Your task to perform on an android device: Clear the shopping cart on walmart.com. Image 0: 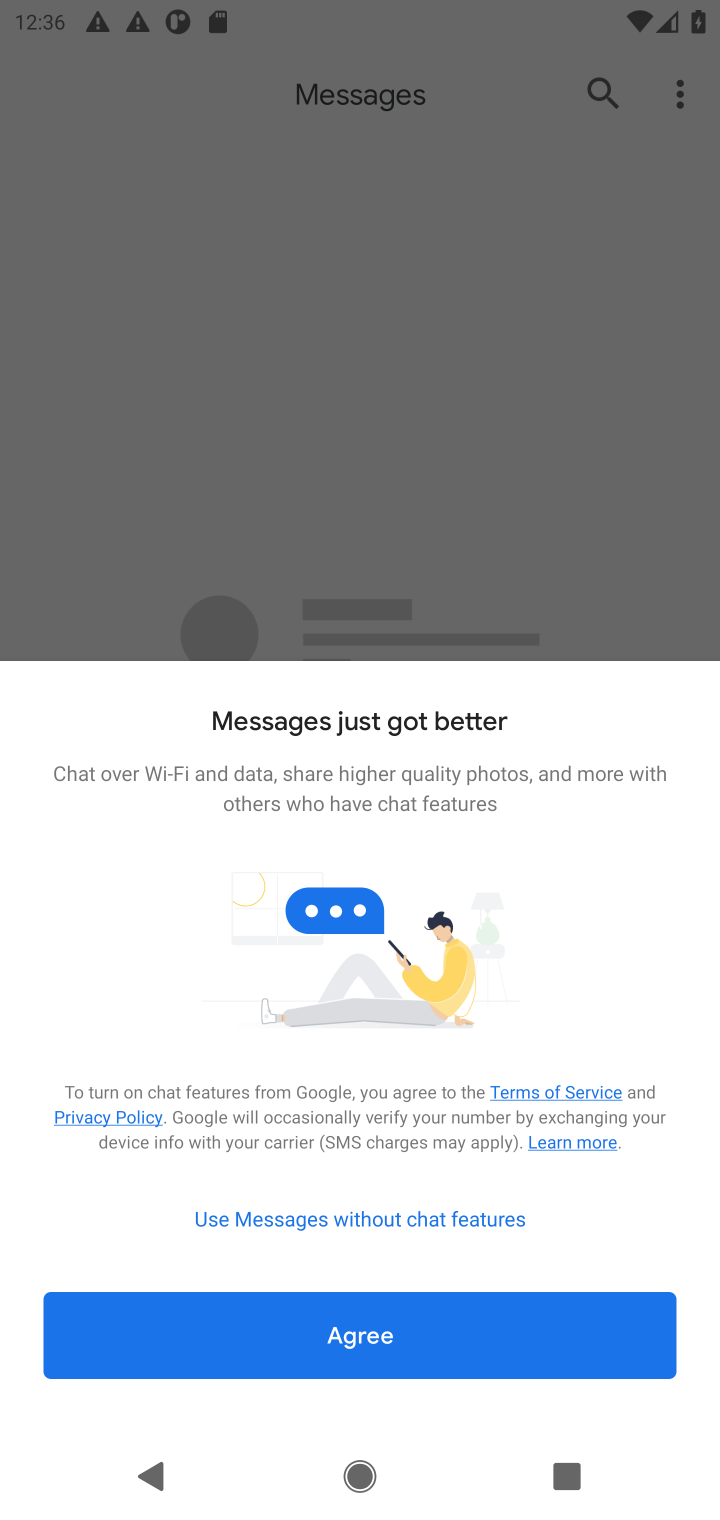
Step 0: click (453, 1340)
Your task to perform on an android device: Clear the shopping cart on walmart.com. Image 1: 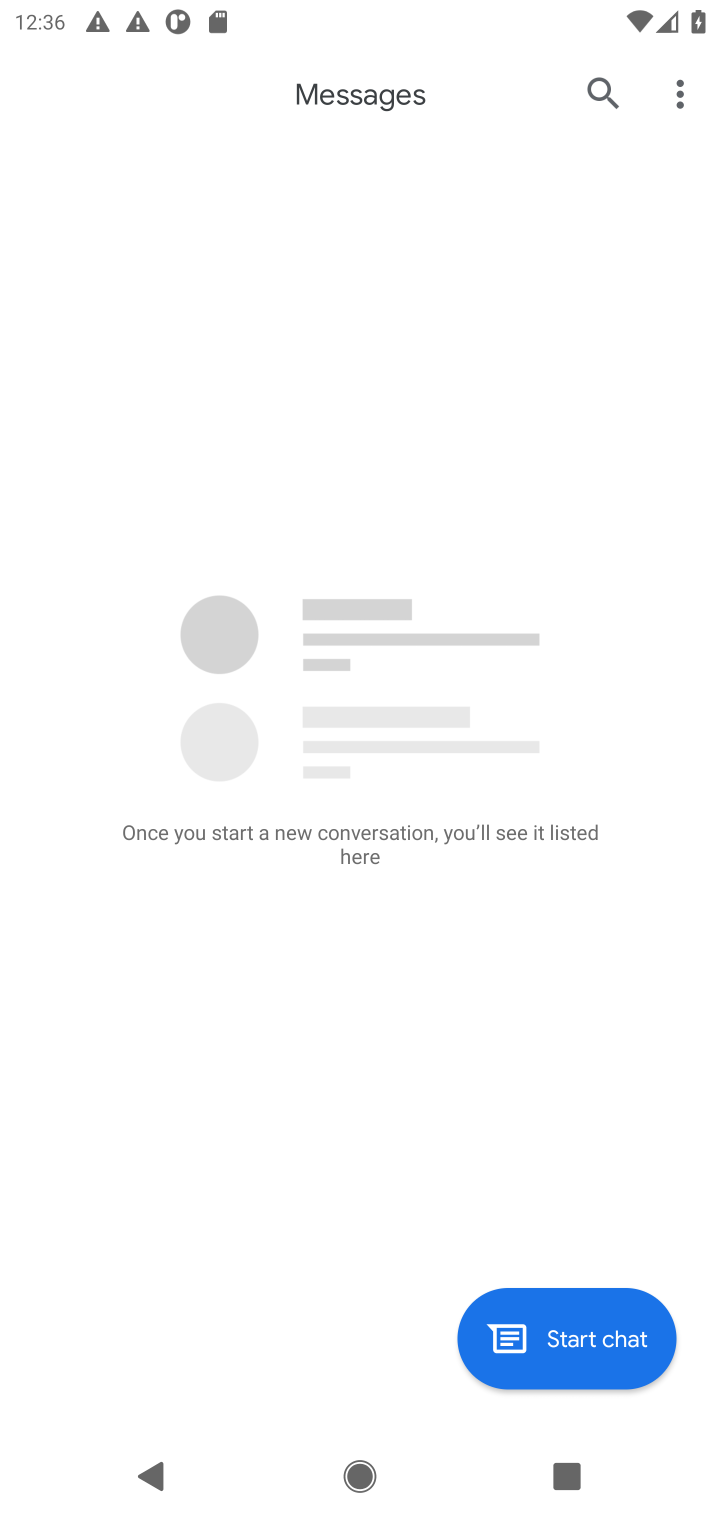
Step 1: press home button
Your task to perform on an android device: Clear the shopping cart on walmart.com. Image 2: 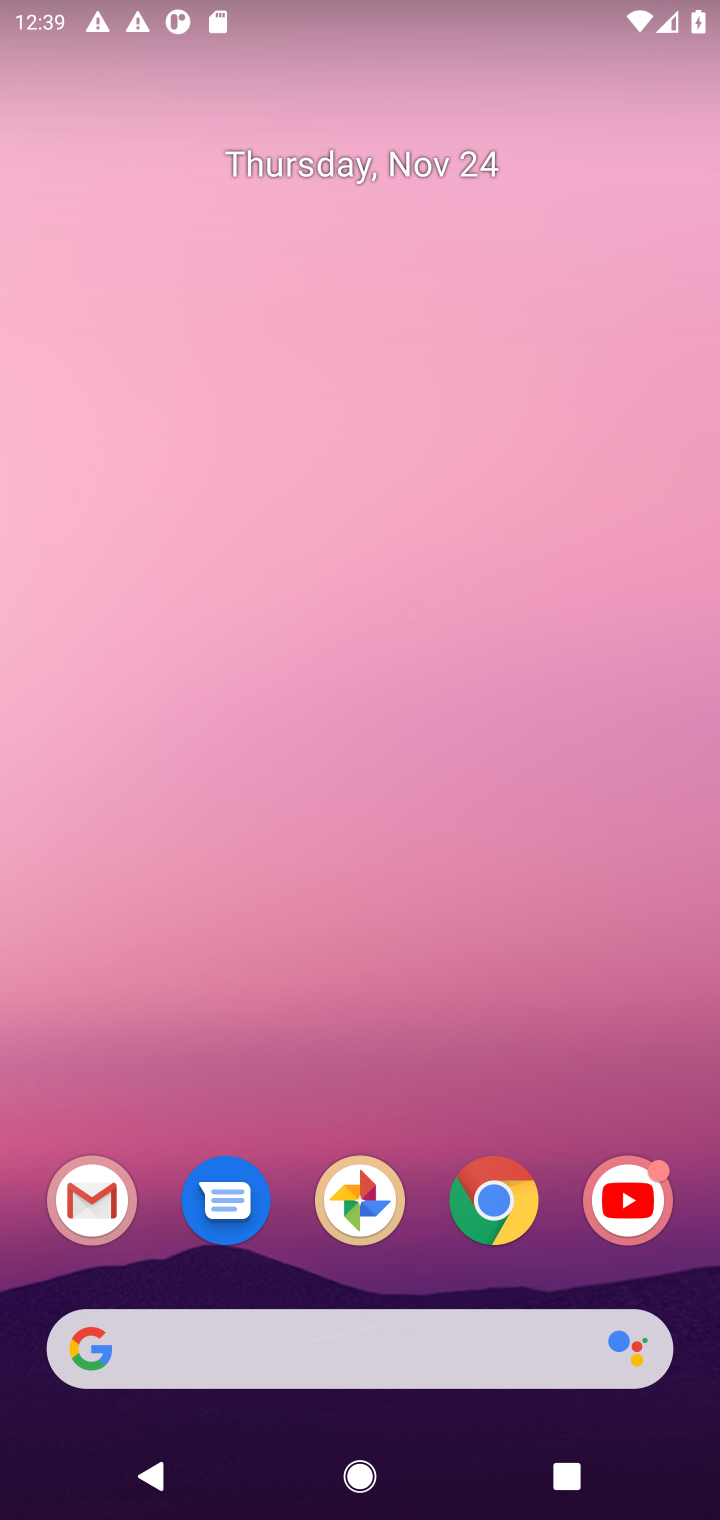
Step 2: click (283, 1357)
Your task to perform on an android device: Clear the shopping cart on walmart.com. Image 3: 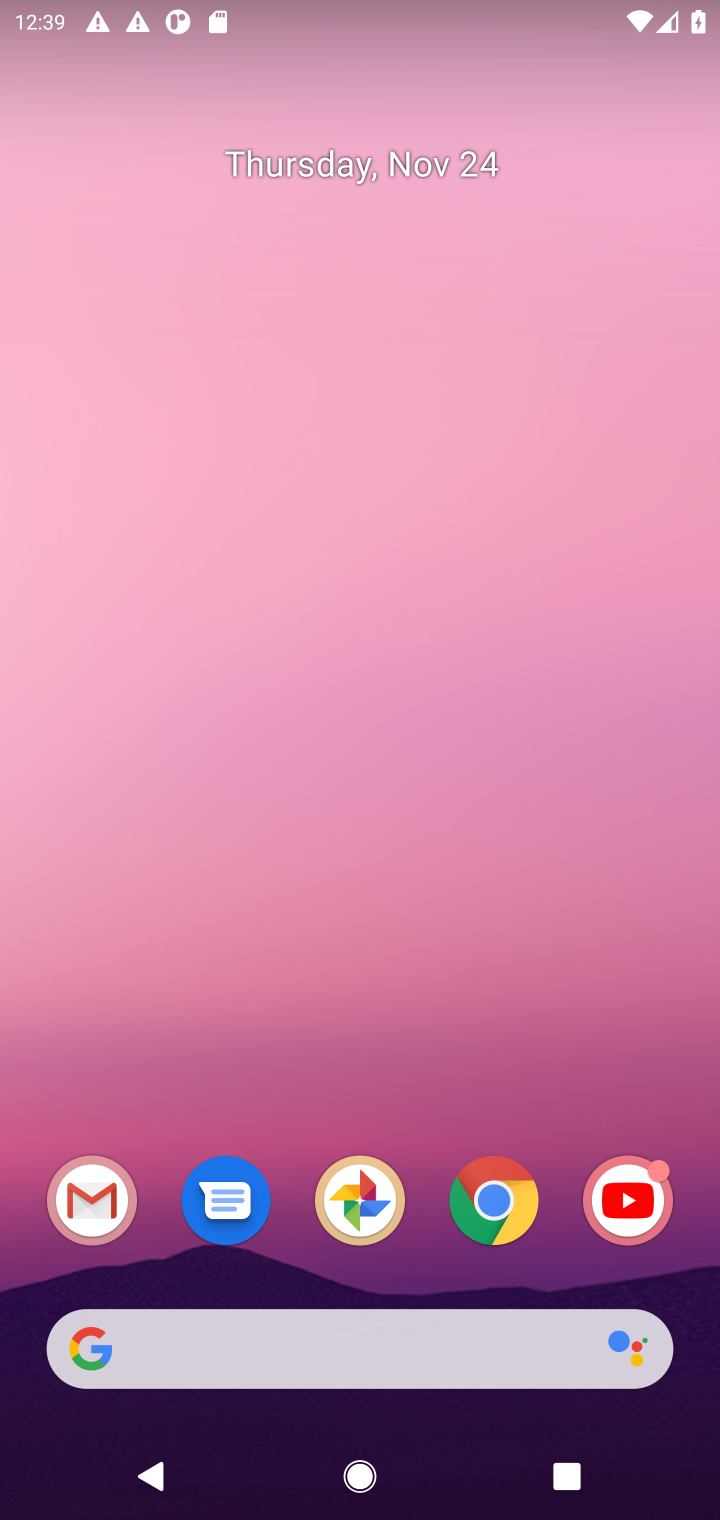
Step 3: click (283, 1357)
Your task to perform on an android device: Clear the shopping cart on walmart.com. Image 4: 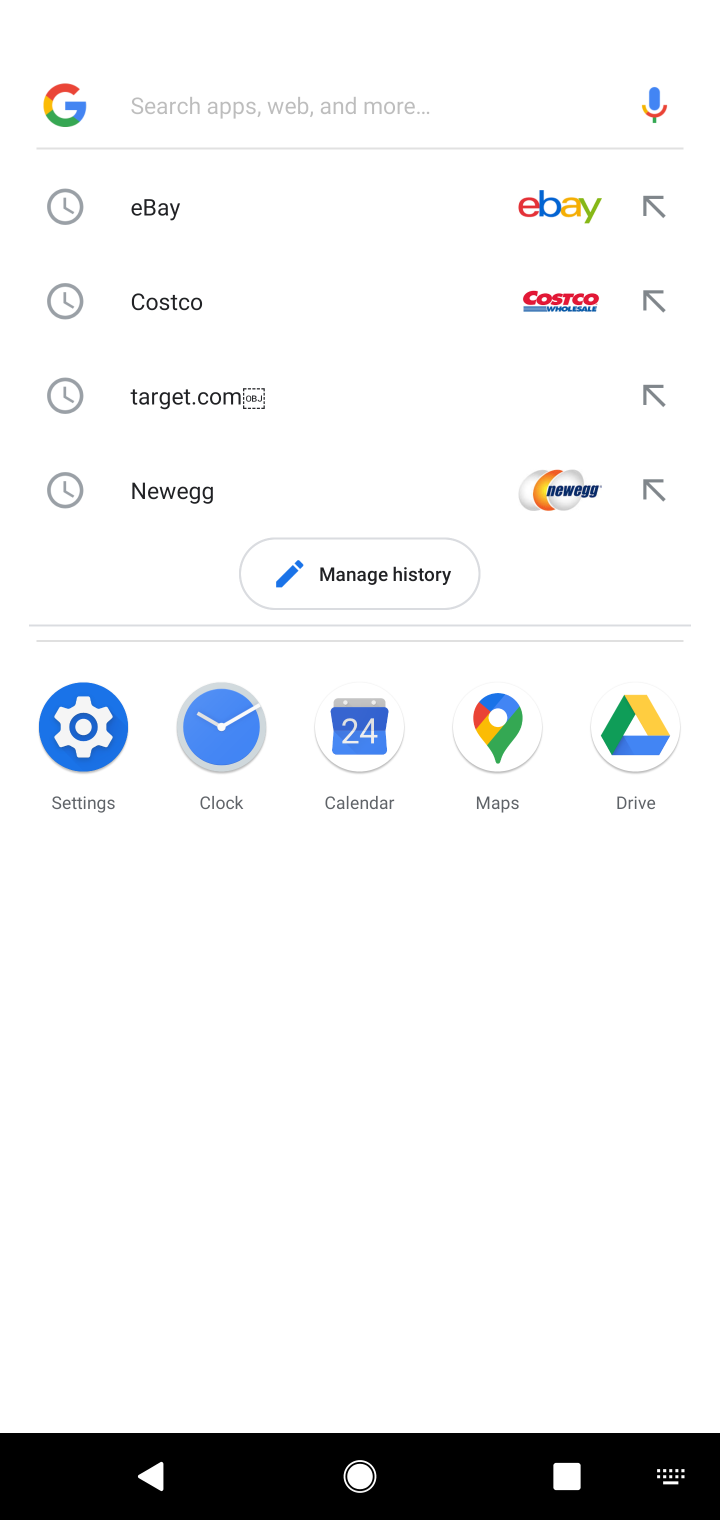
Step 4: type "walmart"
Your task to perform on an android device: Clear the shopping cart on walmart.com. Image 5: 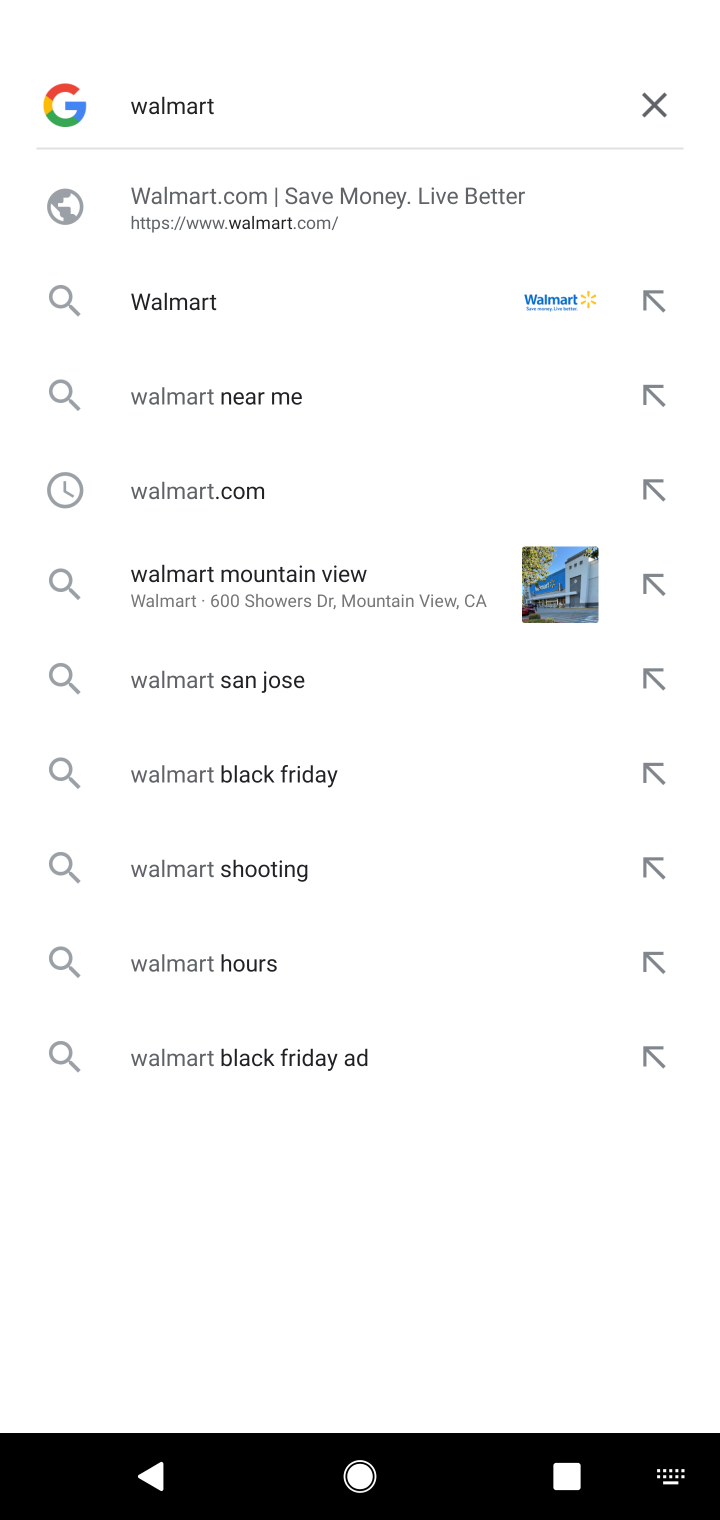
Step 5: click (194, 365)
Your task to perform on an android device: Clear the shopping cart on walmart.com. Image 6: 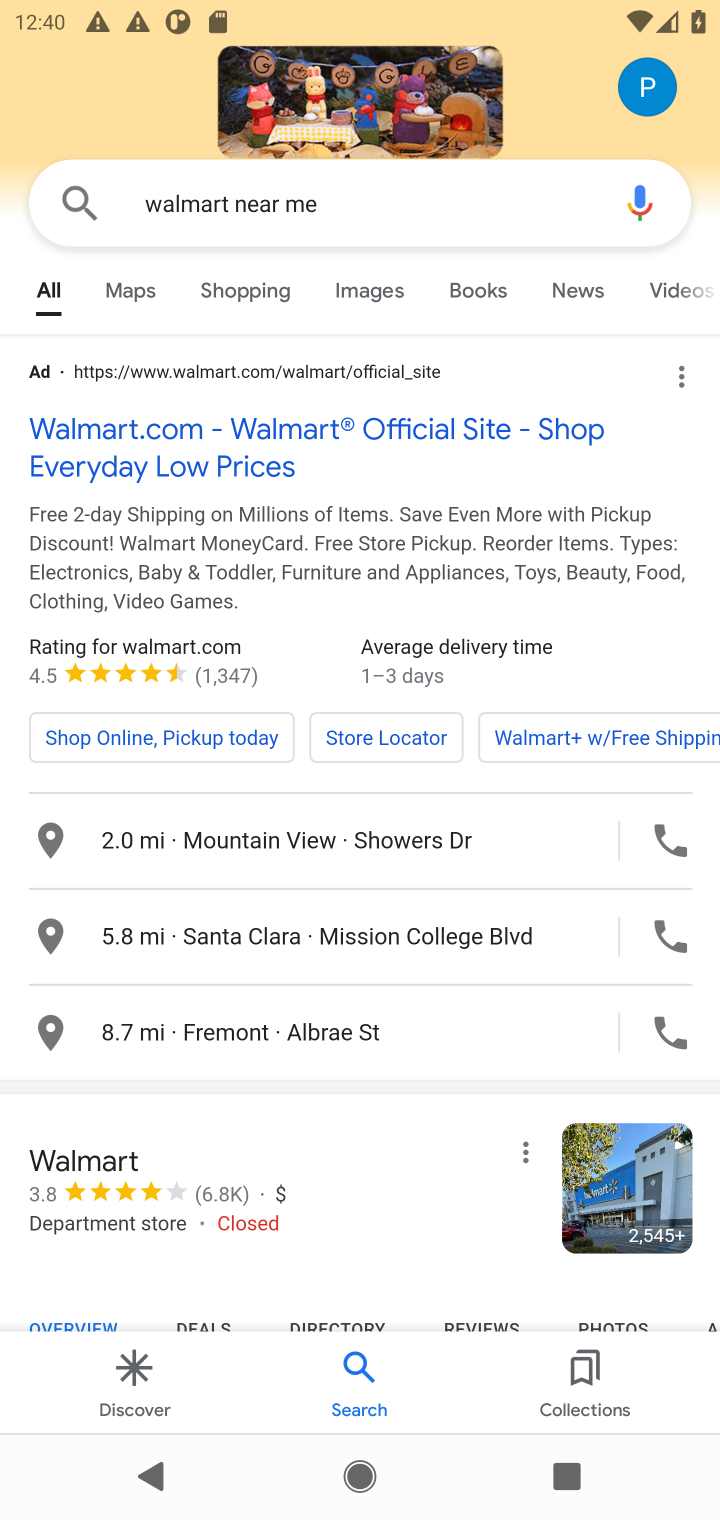
Step 6: click (204, 436)
Your task to perform on an android device: Clear the shopping cart on walmart.com. Image 7: 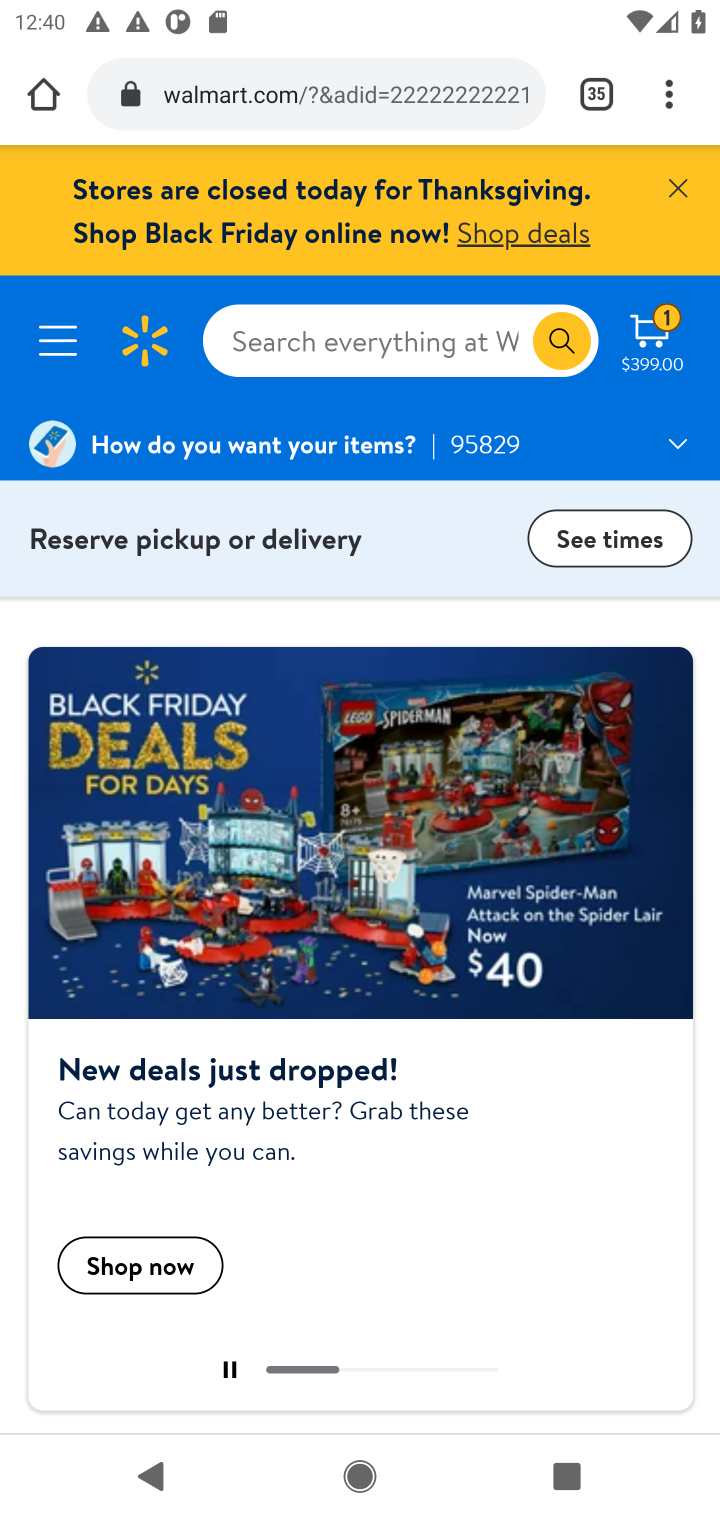
Step 7: click (419, 362)
Your task to perform on an android device: Clear the shopping cart on walmart.com. Image 8: 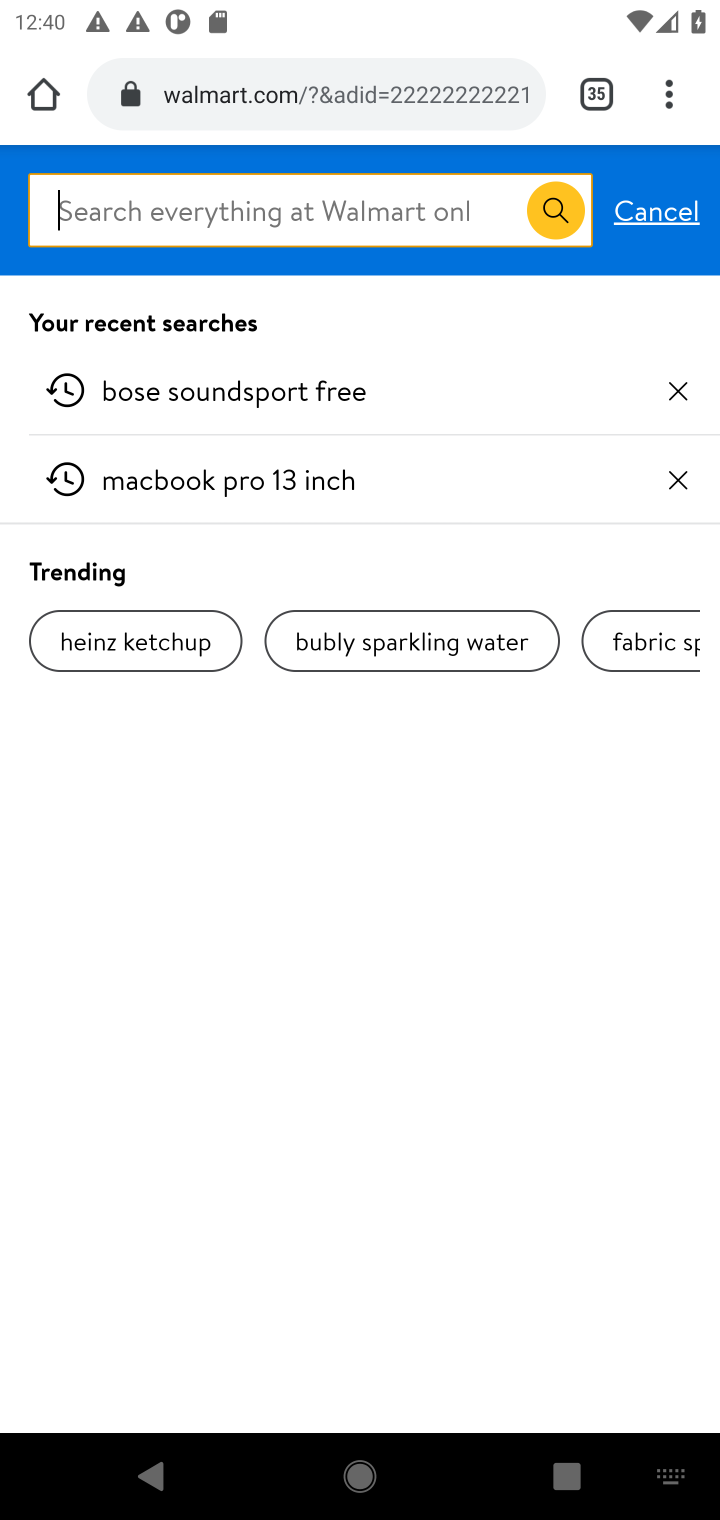
Step 8: task complete